Your task to perform on an android device: Search for vegetarian restaurants on Maps Image 0: 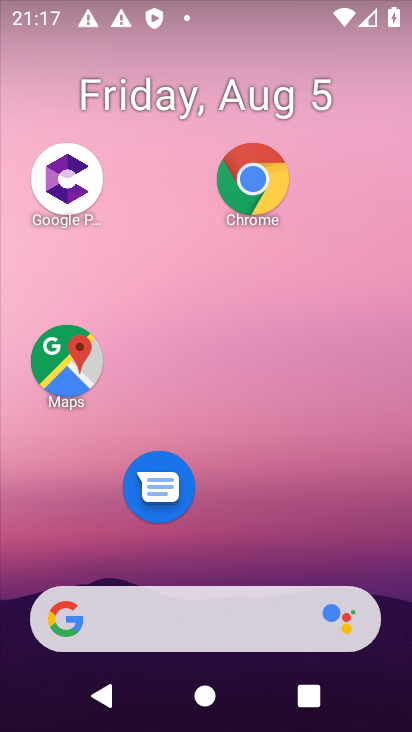
Step 0: click (386, 566)
Your task to perform on an android device: Search for vegetarian restaurants on Maps Image 1: 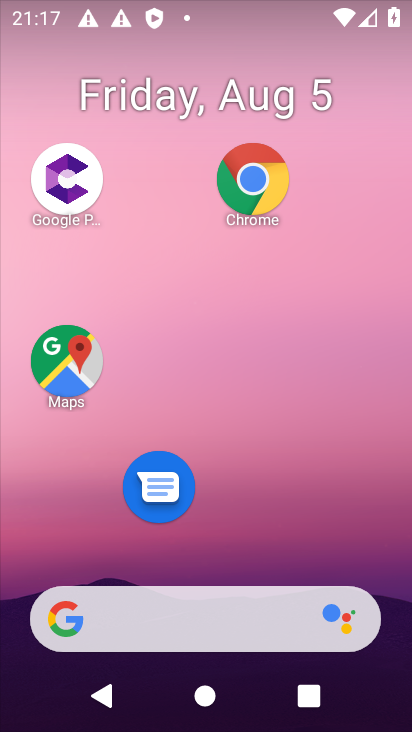
Step 1: click (88, 354)
Your task to perform on an android device: Search for vegetarian restaurants on Maps Image 2: 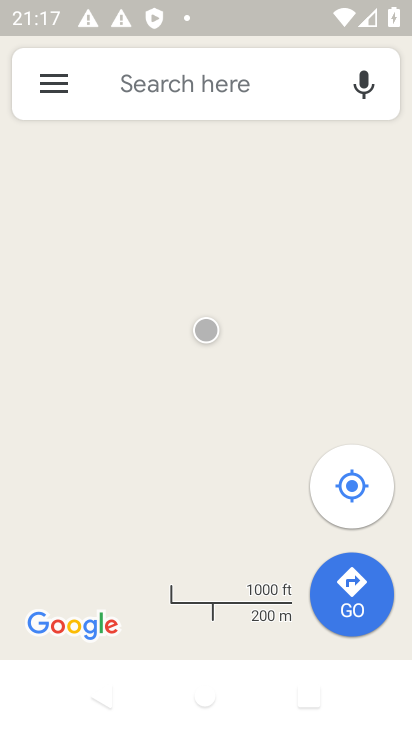
Step 2: click (245, 109)
Your task to perform on an android device: Search for vegetarian restaurants on Maps Image 3: 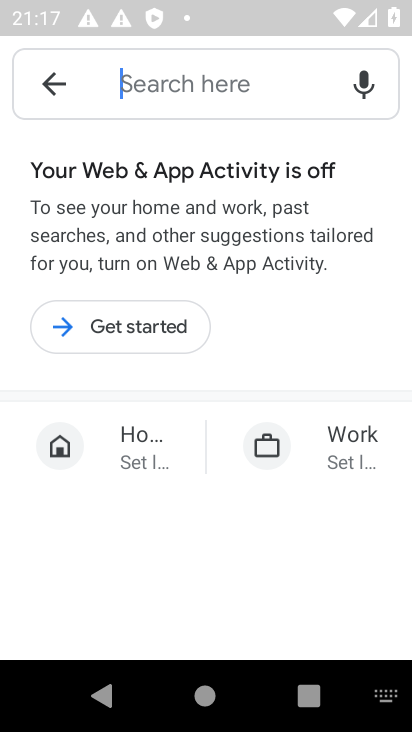
Step 3: click (136, 321)
Your task to perform on an android device: Search for vegetarian restaurants on Maps Image 4: 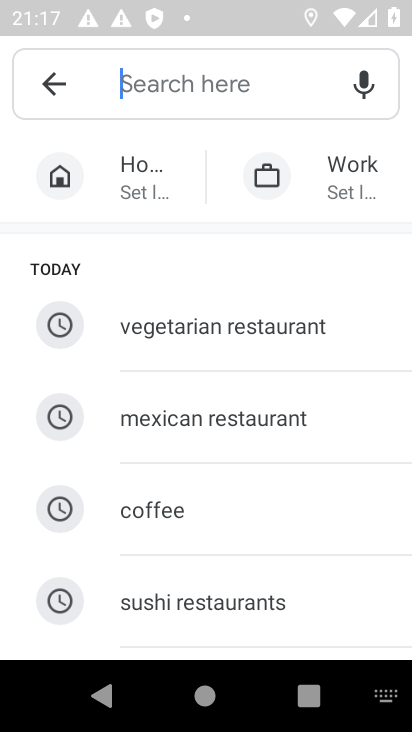
Step 4: click (136, 321)
Your task to perform on an android device: Search for vegetarian restaurants on Maps Image 5: 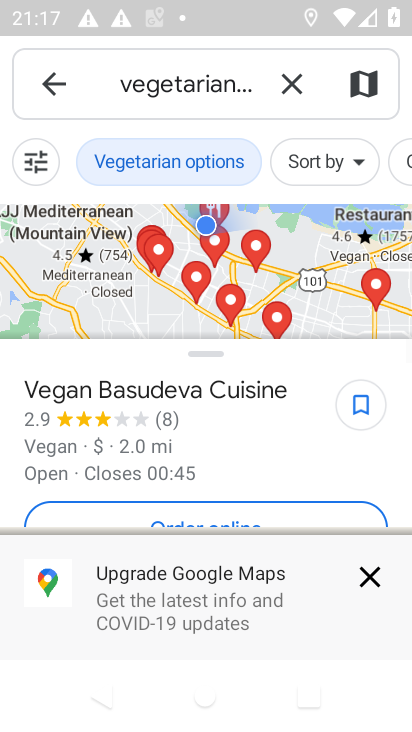
Step 5: task complete